Your task to perform on an android device: What's the weather going to be tomorrow? Image 0: 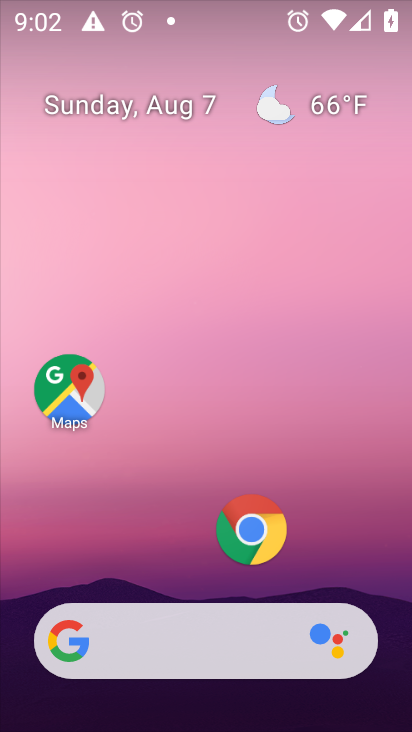
Step 0: click (337, 110)
Your task to perform on an android device: What's the weather going to be tomorrow? Image 1: 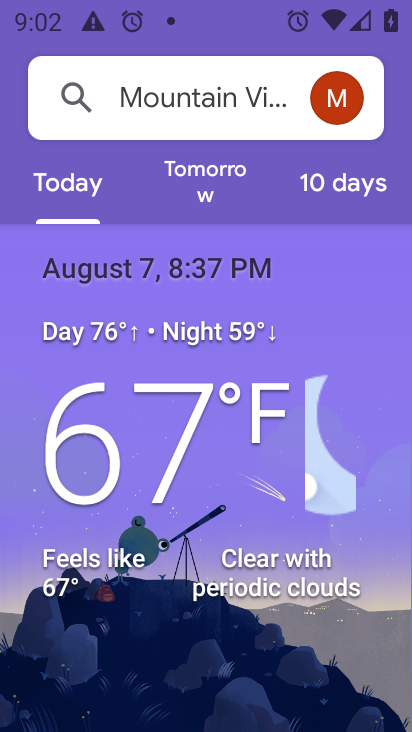
Step 1: click (211, 191)
Your task to perform on an android device: What's the weather going to be tomorrow? Image 2: 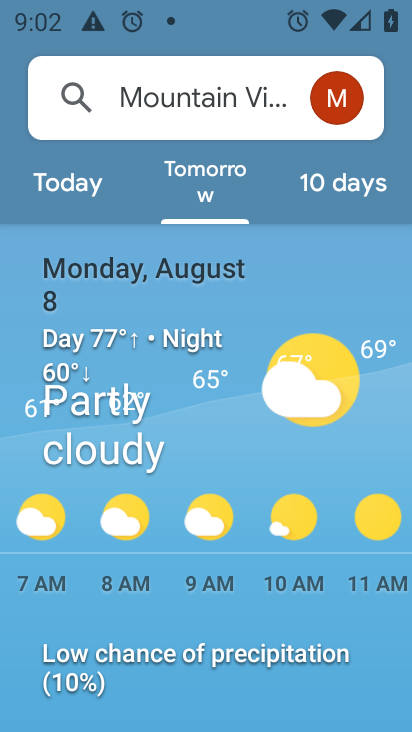
Step 2: task complete